Your task to perform on an android device: open a new tab in the chrome app Image 0: 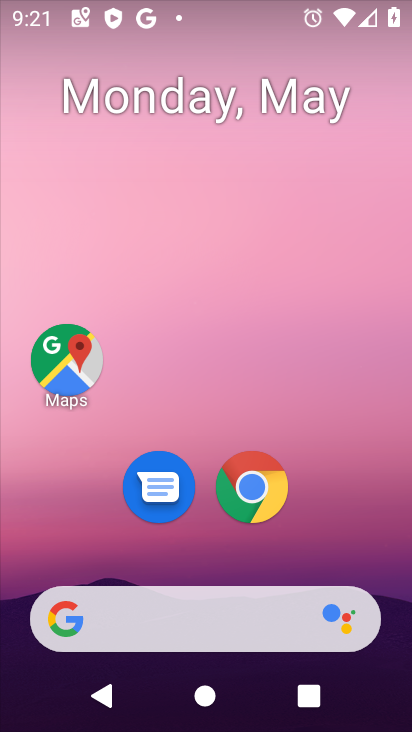
Step 0: click (252, 492)
Your task to perform on an android device: open a new tab in the chrome app Image 1: 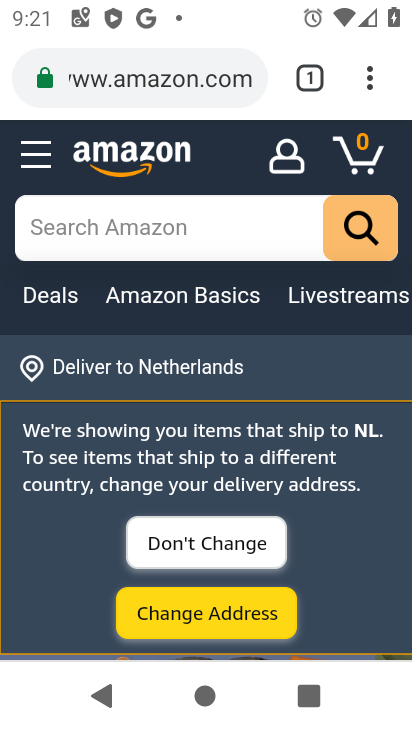
Step 1: click (384, 81)
Your task to perform on an android device: open a new tab in the chrome app Image 2: 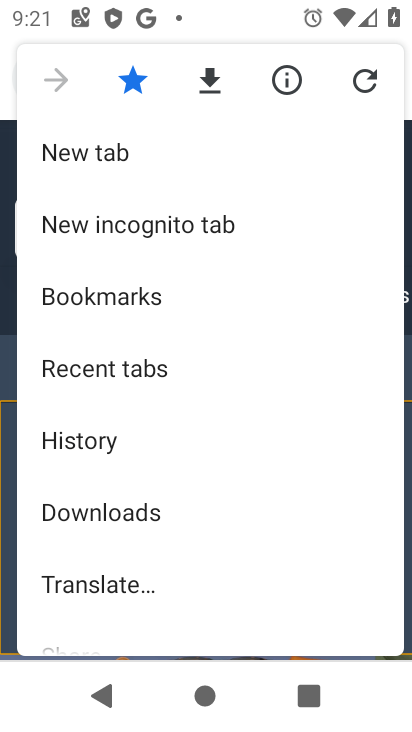
Step 2: click (140, 130)
Your task to perform on an android device: open a new tab in the chrome app Image 3: 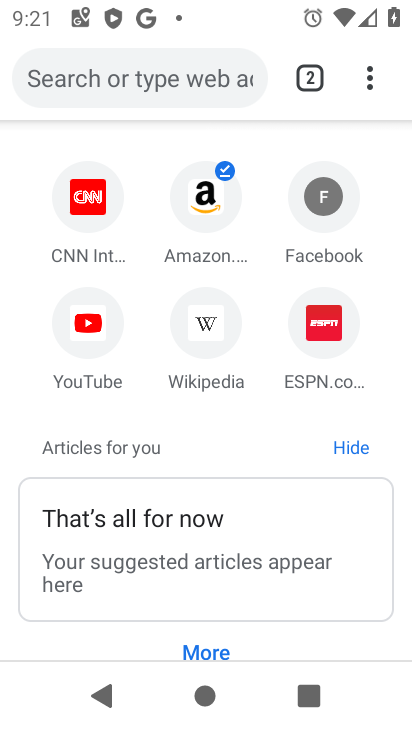
Step 3: task complete